Your task to perform on an android device: View the shopping cart on bestbuy. Search for dell xps on bestbuy, select the first entry, and add it to the cart. Image 0: 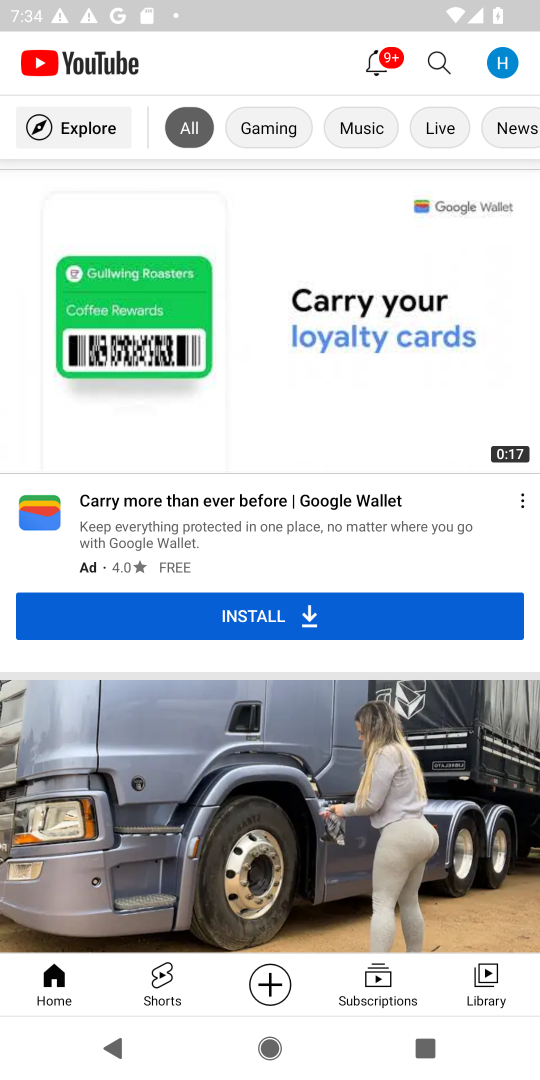
Step 0: press home button
Your task to perform on an android device: View the shopping cart on bestbuy. Search for dell xps on bestbuy, select the first entry, and add it to the cart. Image 1: 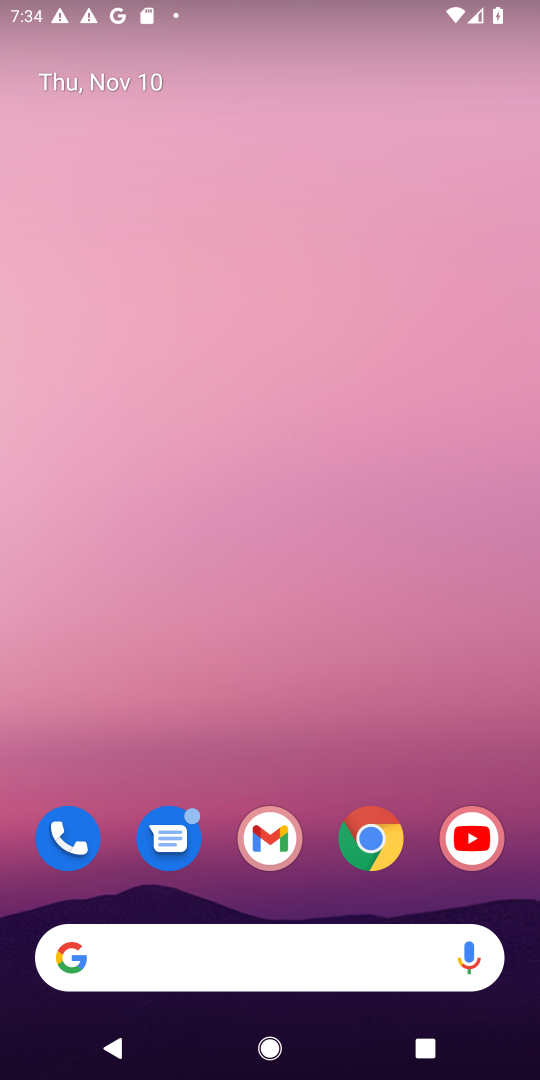
Step 1: drag from (309, 896) to (261, 1)
Your task to perform on an android device: View the shopping cart on bestbuy. Search for dell xps on bestbuy, select the first entry, and add it to the cart. Image 2: 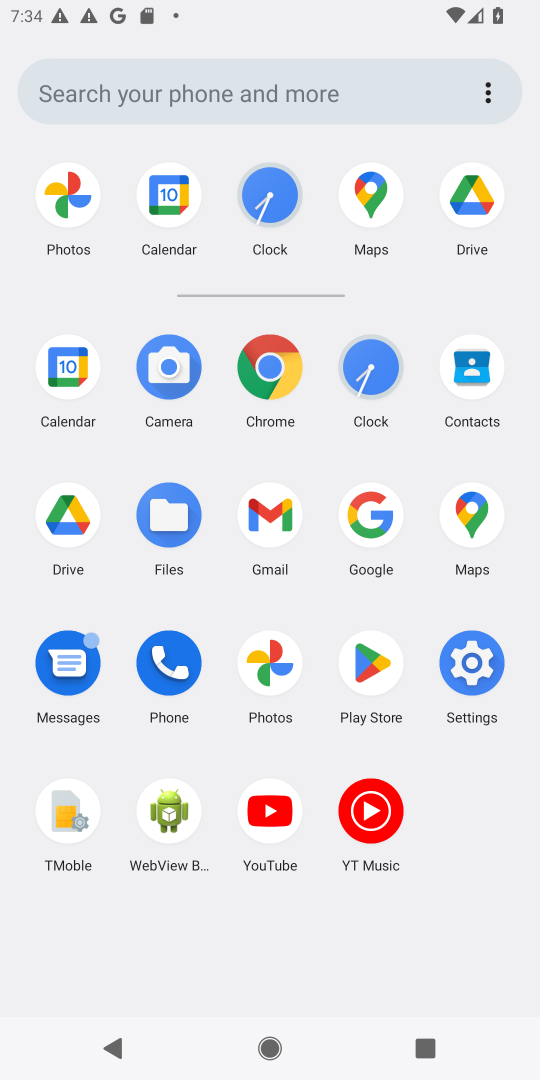
Step 2: click (270, 368)
Your task to perform on an android device: View the shopping cart on bestbuy. Search for dell xps on bestbuy, select the first entry, and add it to the cart. Image 3: 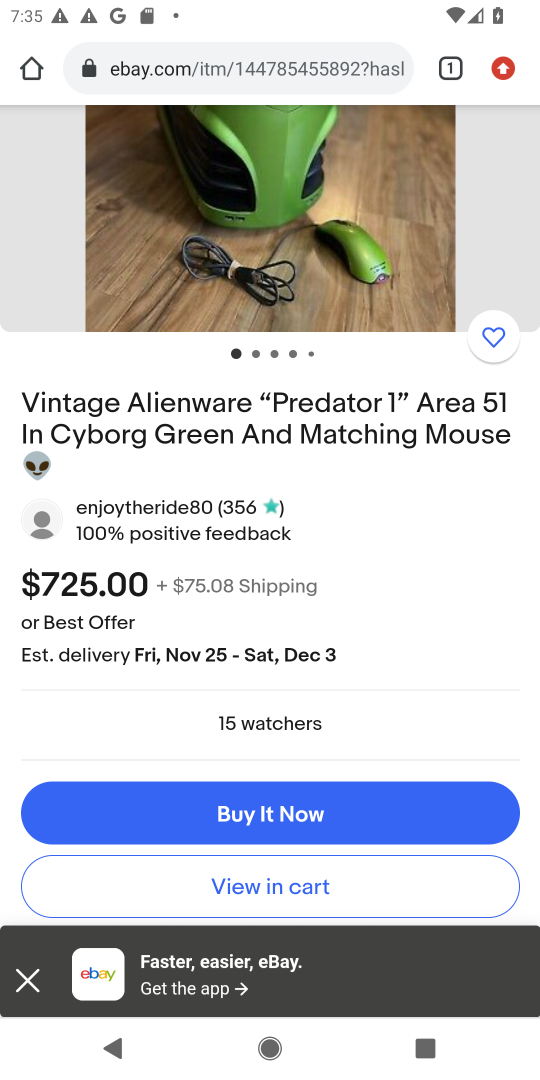
Step 3: click (241, 57)
Your task to perform on an android device: View the shopping cart on bestbuy. Search for dell xps on bestbuy, select the first entry, and add it to the cart. Image 4: 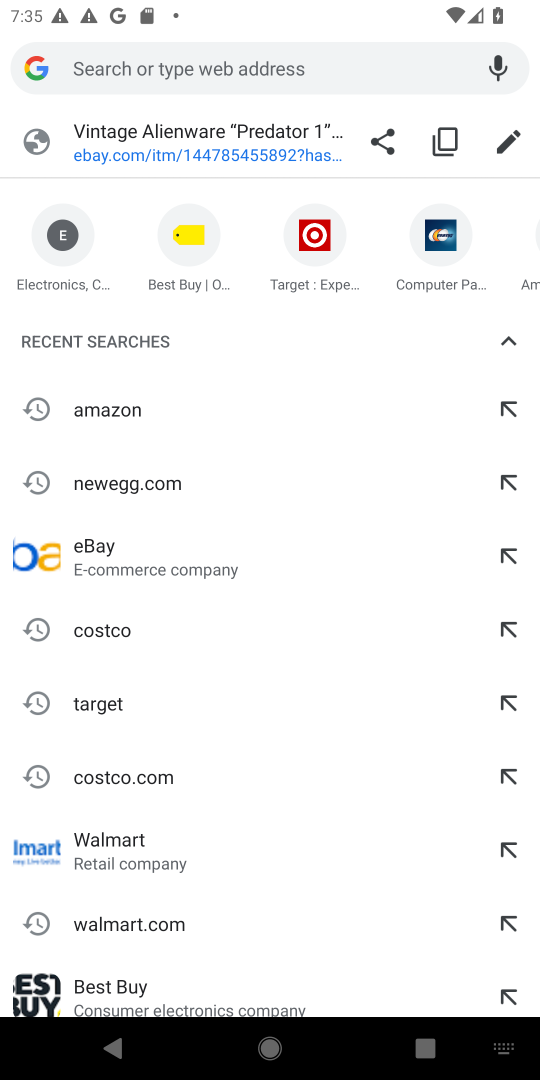
Step 4: type "bestbuy.com"
Your task to perform on an android device: View the shopping cart on bestbuy. Search for dell xps on bestbuy, select the first entry, and add it to the cart. Image 5: 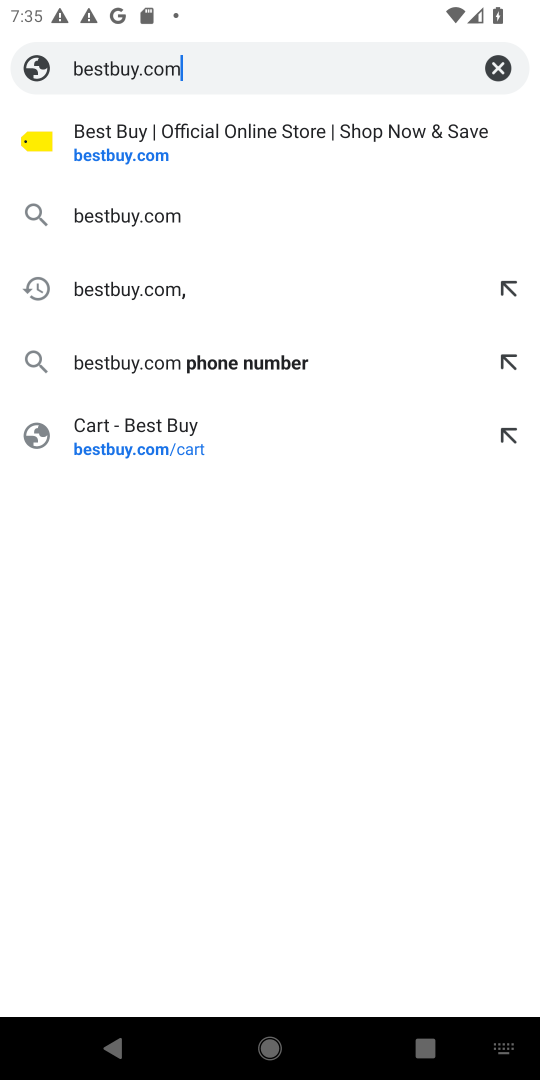
Step 5: press enter
Your task to perform on an android device: View the shopping cart on bestbuy. Search for dell xps on bestbuy, select the first entry, and add it to the cart. Image 6: 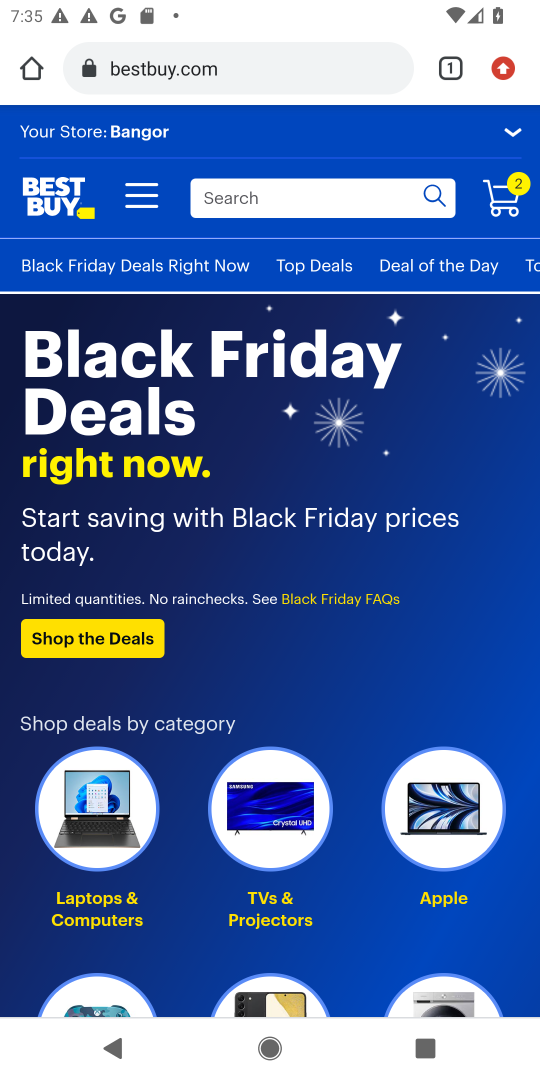
Step 6: click (519, 208)
Your task to perform on an android device: View the shopping cart on bestbuy. Search for dell xps on bestbuy, select the first entry, and add it to the cart. Image 7: 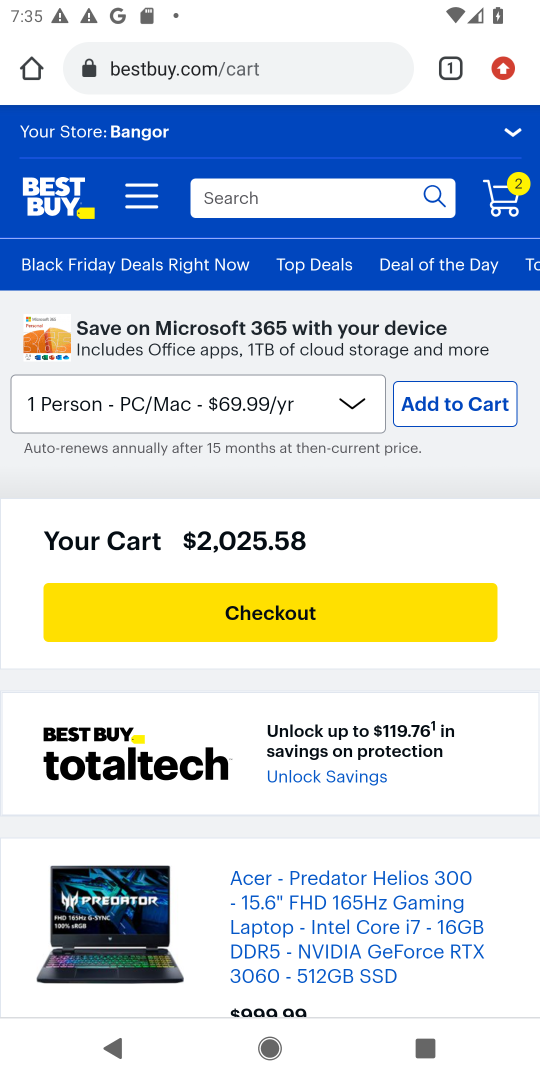
Step 7: click (293, 184)
Your task to perform on an android device: View the shopping cart on bestbuy. Search for dell xps on bestbuy, select the first entry, and add it to the cart. Image 8: 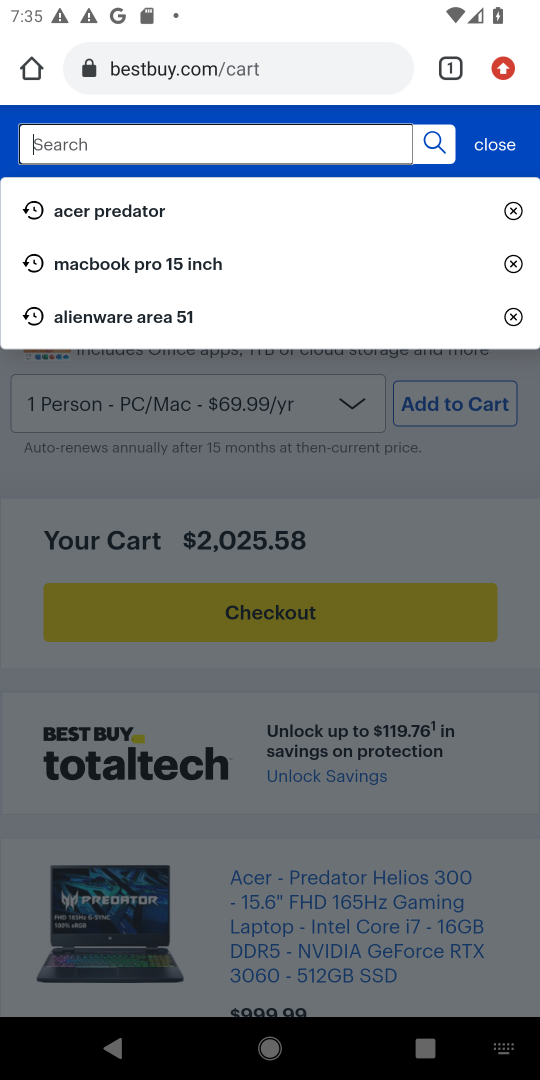
Step 8: type "dell exps"
Your task to perform on an android device: View the shopping cart on bestbuy. Search for dell xps on bestbuy, select the first entry, and add it to the cart. Image 9: 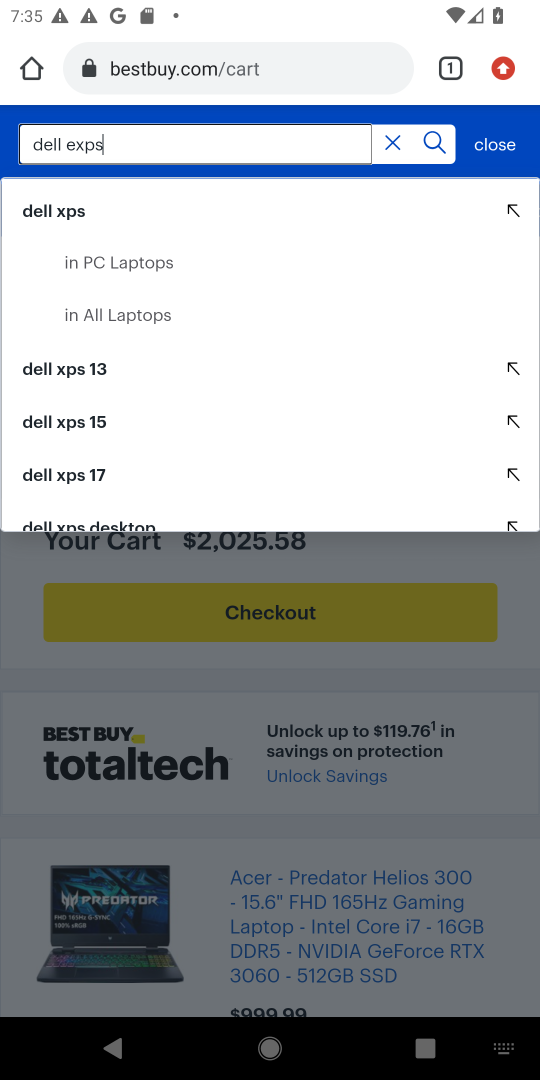
Step 9: press enter
Your task to perform on an android device: View the shopping cart on bestbuy. Search for dell xps on bestbuy, select the first entry, and add it to the cart. Image 10: 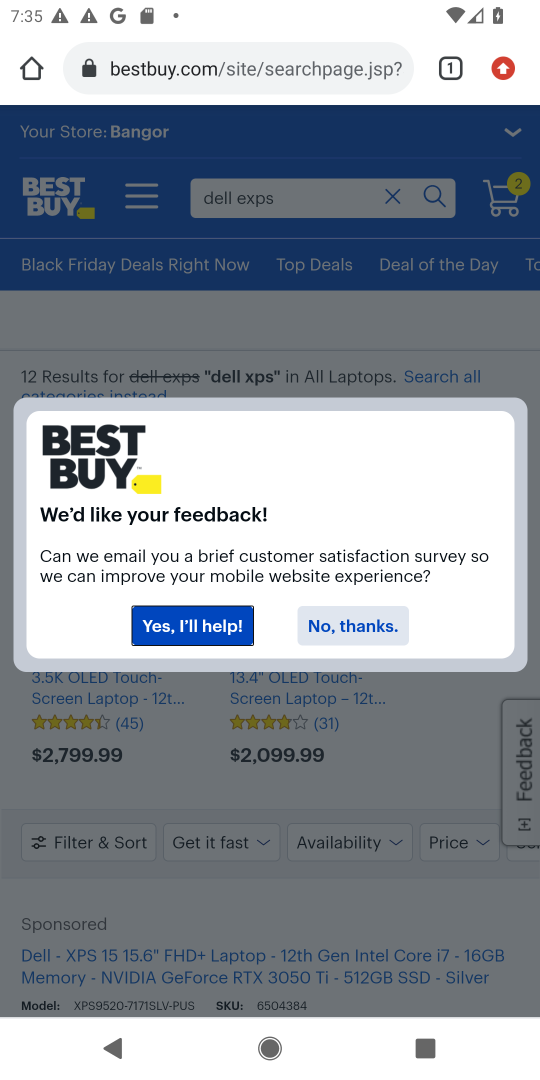
Step 10: click (364, 618)
Your task to perform on an android device: View the shopping cart on bestbuy. Search for dell xps on bestbuy, select the first entry, and add it to the cart. Image 11: 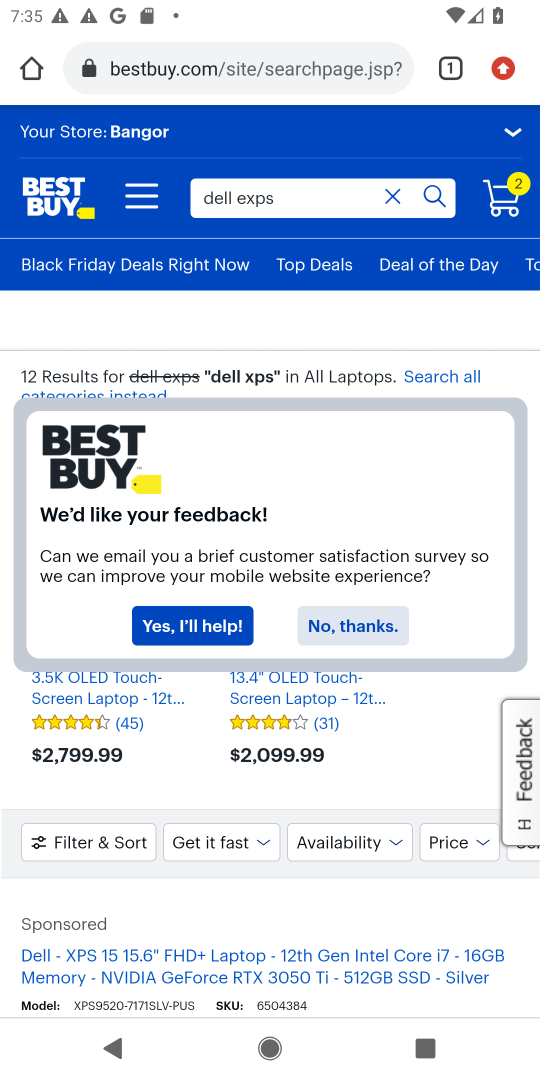
Step 11: click (327, 631)
Your task to perform on an android device: View the shopping cart on bestbuy. Search for dell xps on bestbuy, select the first entry, and add it to the cart. Image 12: 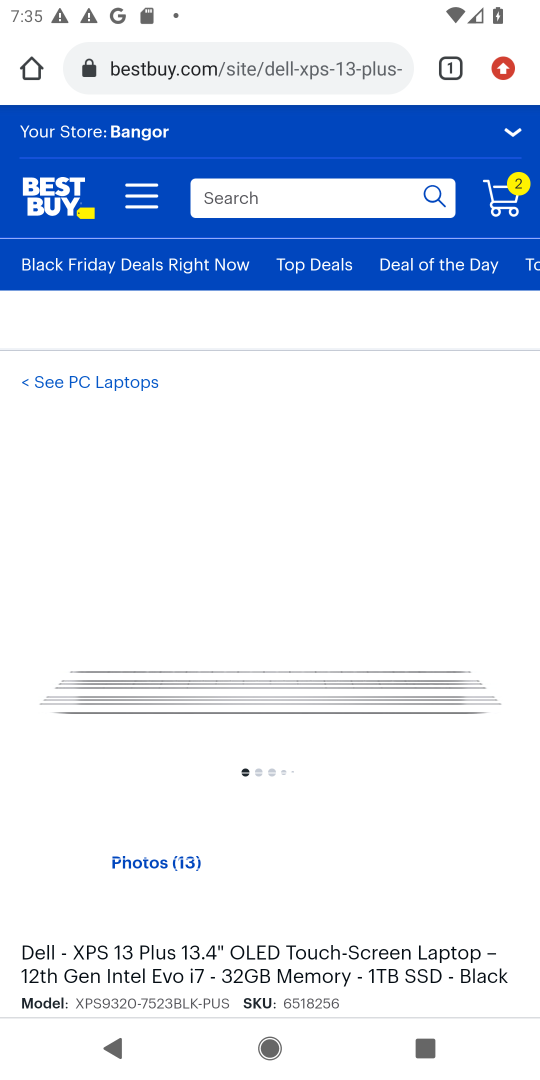
Step 12: press back button
Your task to perform on an android device: View the shopping cart on bestbuy. Search for dell xps on bestbuy, select the first entry, and add it to the cart. Image 13: 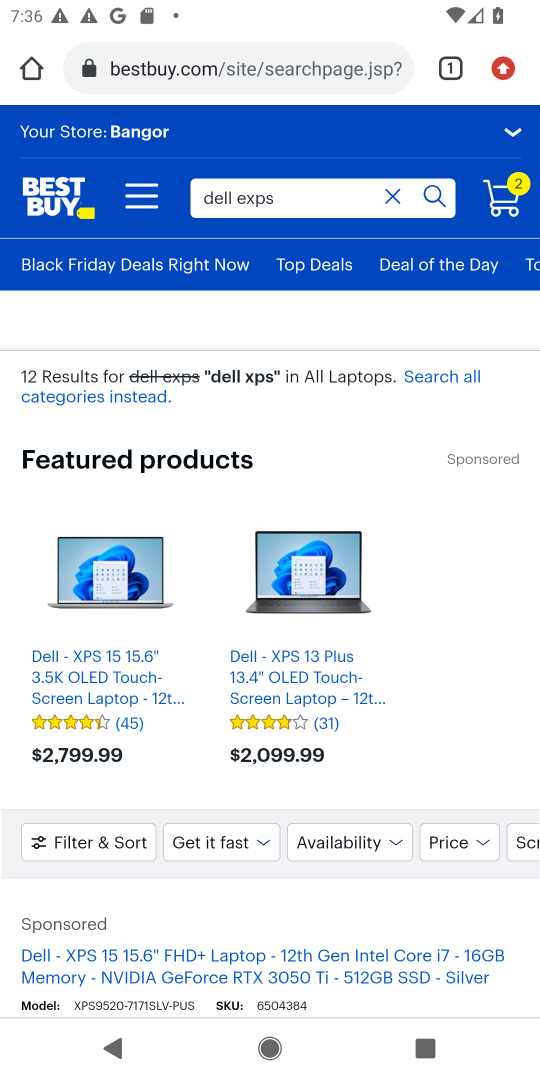
Step 13: drag from (169, 826) to (245, 168)
Your task to perform on an android device: View the shopping cart on bestbuy. Search for dell xps on bestbuy, select the first entry, and add it to the cart. Image 14: 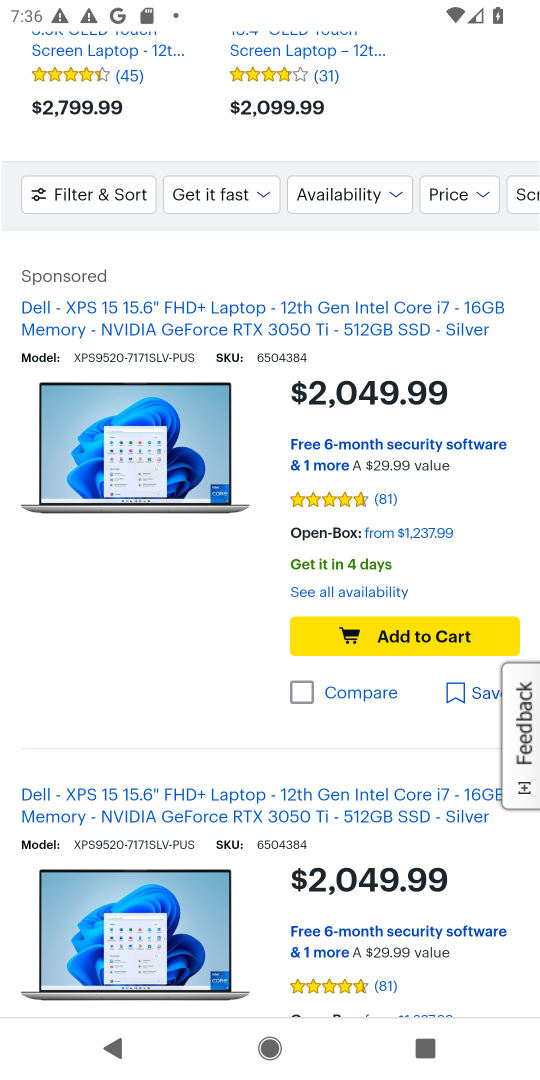
Step 14: drag from (329, 963) to (360, 558)
Your task to perform on an android device: View the shopping cart on bestbuy. Search for dell xps on bestbuy, select the first entry, and add it to the cart. Image 15: 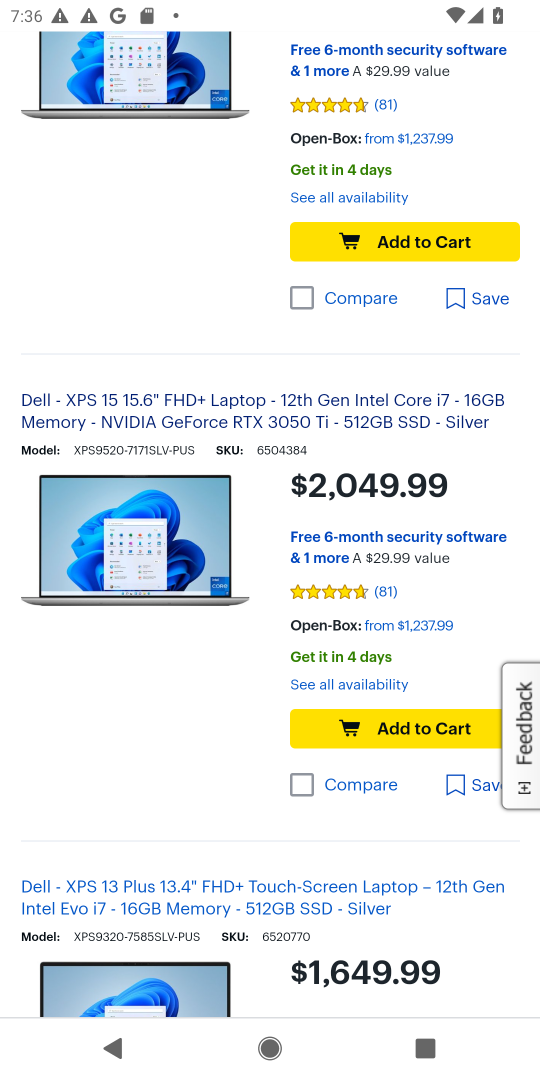
Step 15: click (431, 725)
Your task to perform on an android device: View the shopping cart on bestbuy. Search for dell xps on bestbuy, select the first entry, and add it to the cart. Image 16: 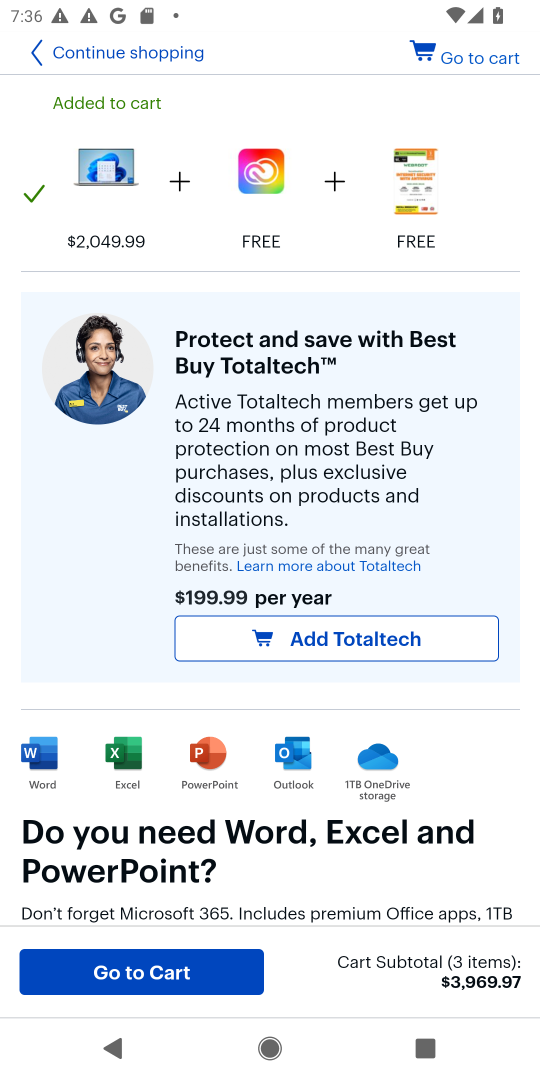
Step 16: task complete